Your task to perform on an android device: Do I have any events today? Image 0: 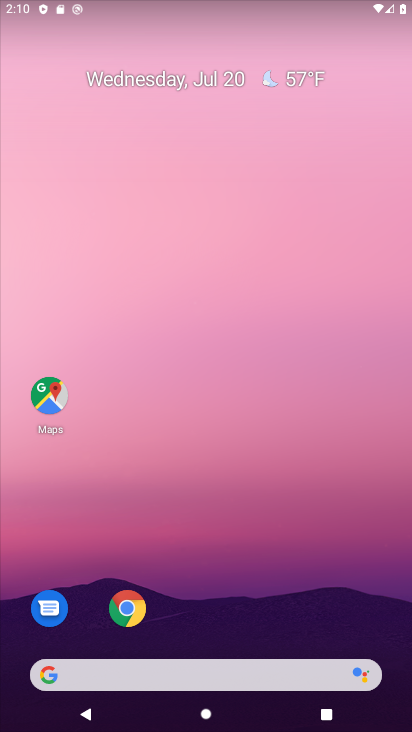
Step 0: drag from (180, 585) to (86, 9)
Your task to perform on an android device: Do I have any events today? Image 1: 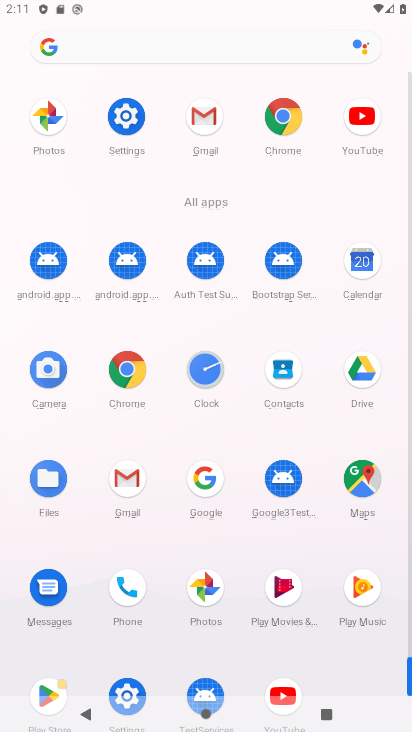
Step 1: click (356, 267)
Your task to perform on an android device: Do I have any events today? Image 2: 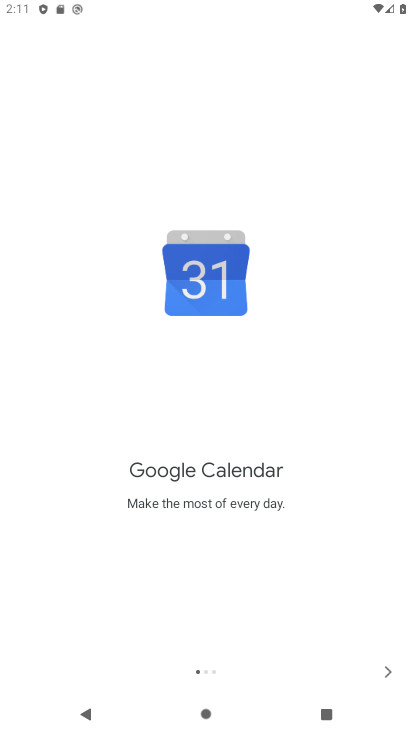
Step 2: click (386, 667)
Your task to perform on an android device: Do I have any events today? Image 3: 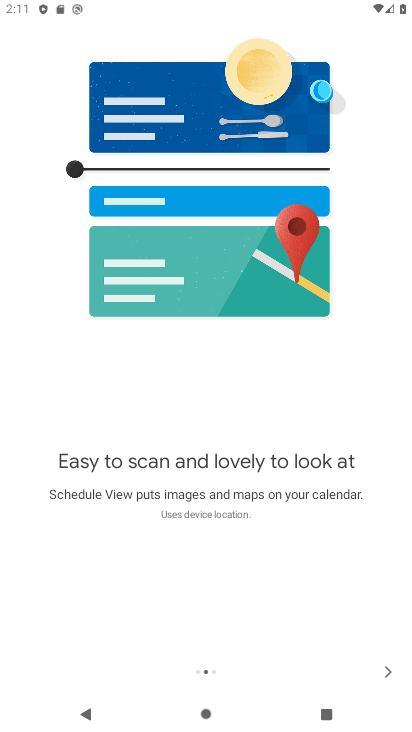
Step 3: click (389, 667)
Your task to perform on an android device: Do I have any events today? Image 4: 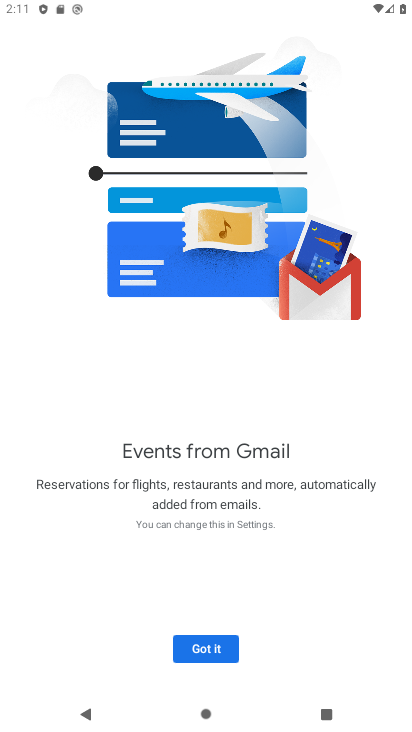
Step 4: click (198, 643)
Your task to perform on an android device: Do I have any events today? Image 5: 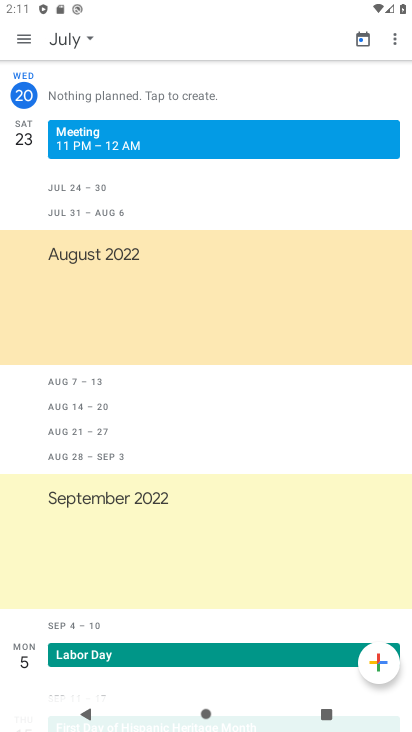
Step 5: click (26, 95)
Your task to perform on an android device: Do I have any events today? Image 6: 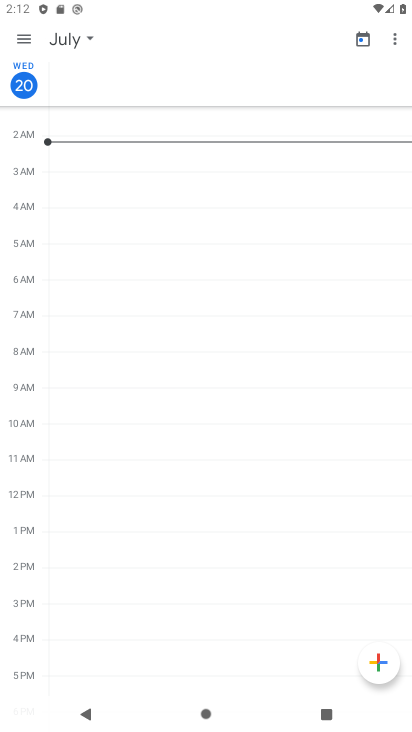
Step 6: click (24, 90)
Your task to perform on an android device: Do I have any events today? Image 7: 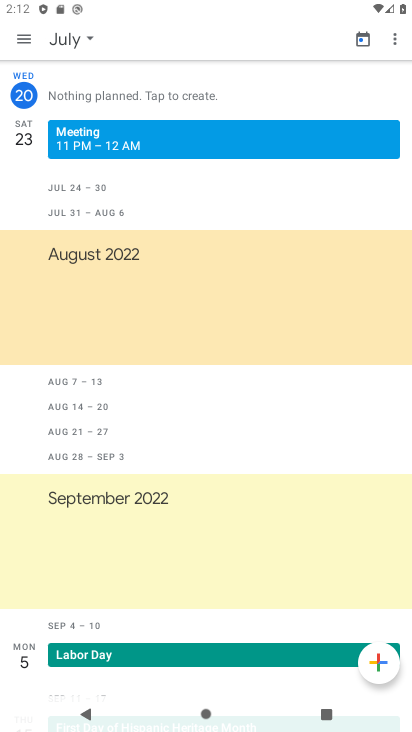
Step 7: task complete